Your task to perform on an android device: Open Yahoo.com Image 0: 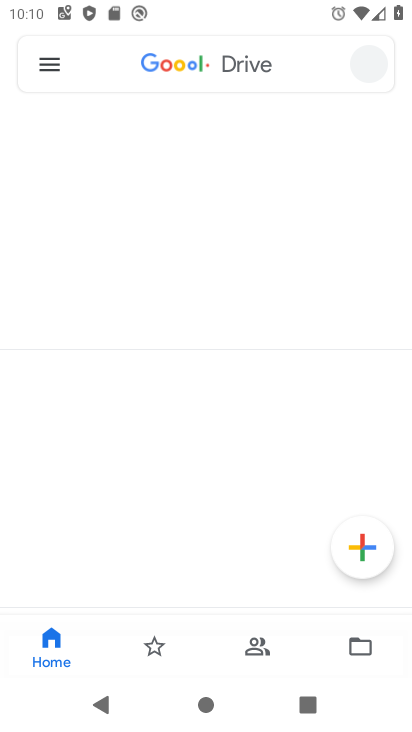
Step 0: click (208, 173)
Your task to perform on an android device: Open Yahoo.com Image 1: 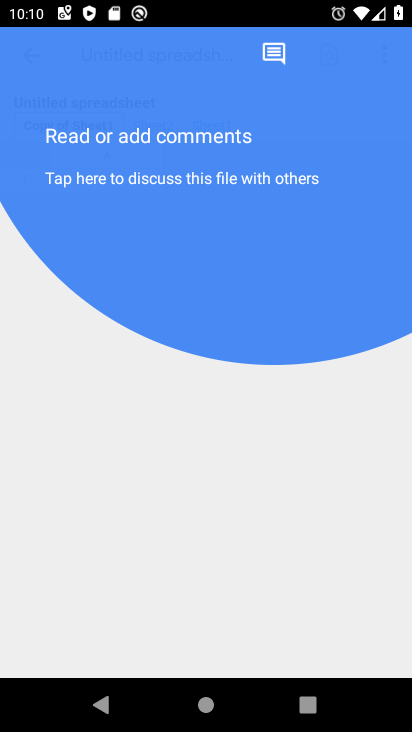
Step 1: press back button
Your task to perform on an android device: Open Yahoo.com Image 2: 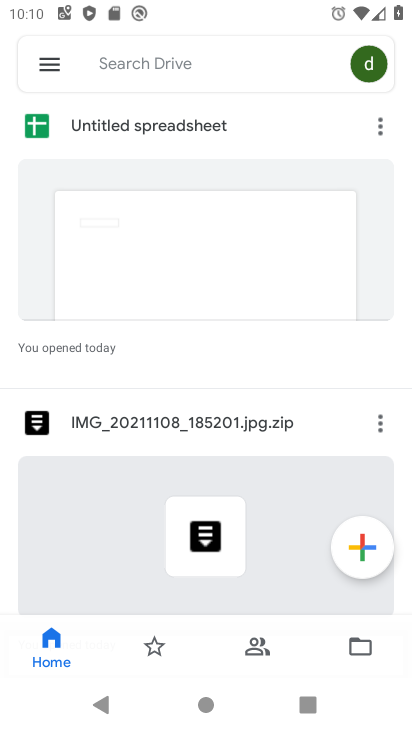
Step 2: press back button
Your task to perform on an android device: Open Yahoo.com Image 3: 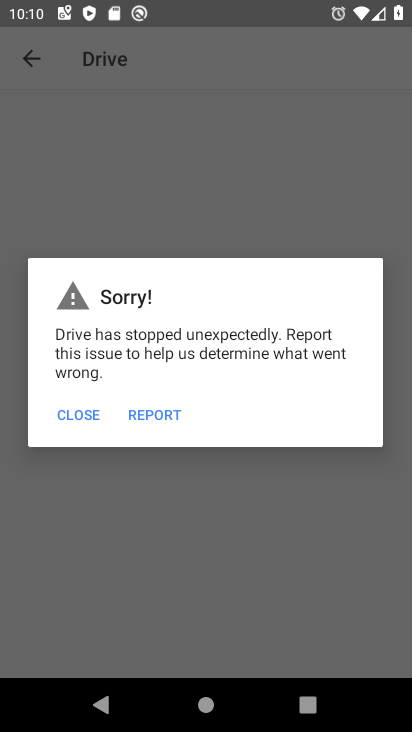
Step 3: click (76, 403)
Your task to perform on an android device: Open Yahoo.com Image 4: 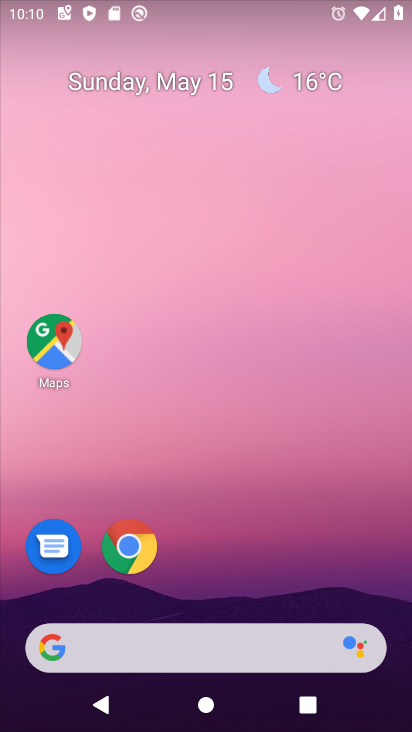
Step 4: click (179, 223)
Your task to perform on an android device: Open Yahoo.com Image 5: 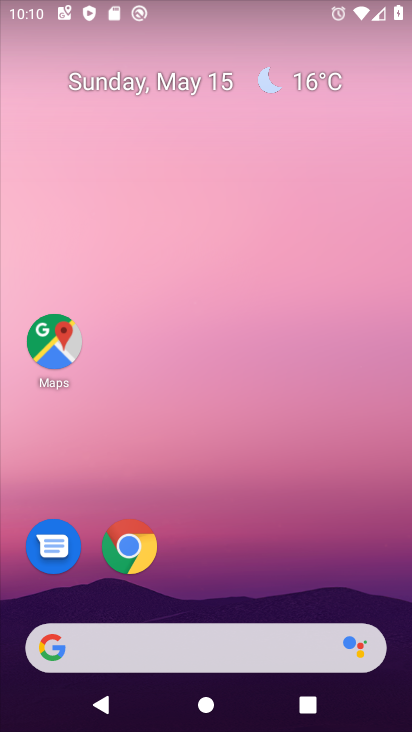
Step 5: drag from (202, 458) to (202, 190)
Your task to perform on an android device: Open Yahoo.com Image 6: 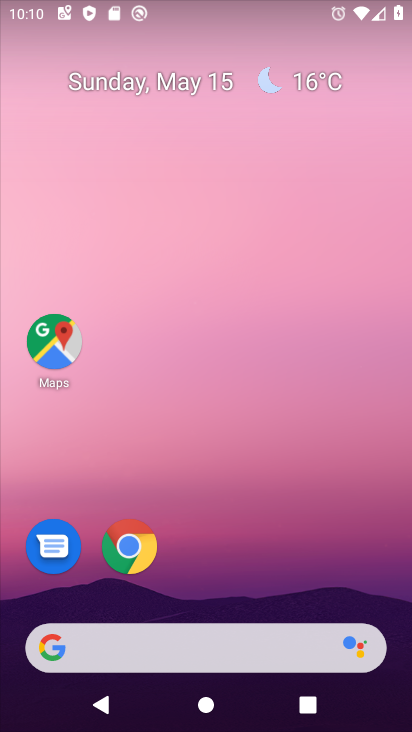
Step 6: drag from (246, 596) to (206, 193)
Your task to perform on an android device: Open Yahoo.com Image 7: 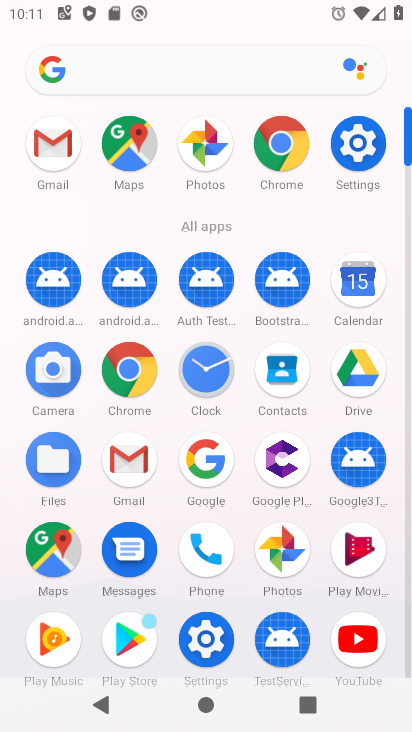
Step 7: click (359, 153)
Your task to perform on an android device: Open Yahoo.com Image 8: 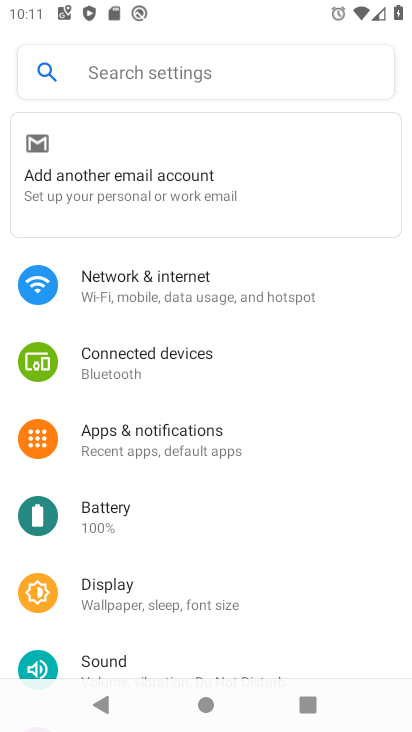
Step 8: press back button
Your task to perform on an android device: Open Yahoo.com Image 9: 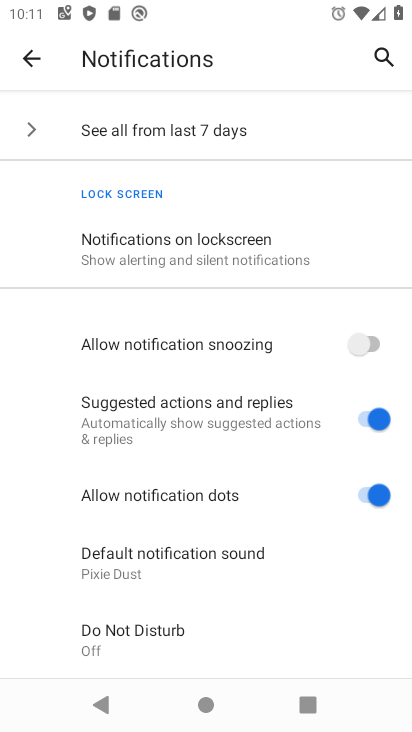
Step 9: press back button
Your task to perform on an android device: Open Yahoo.com Image 10: 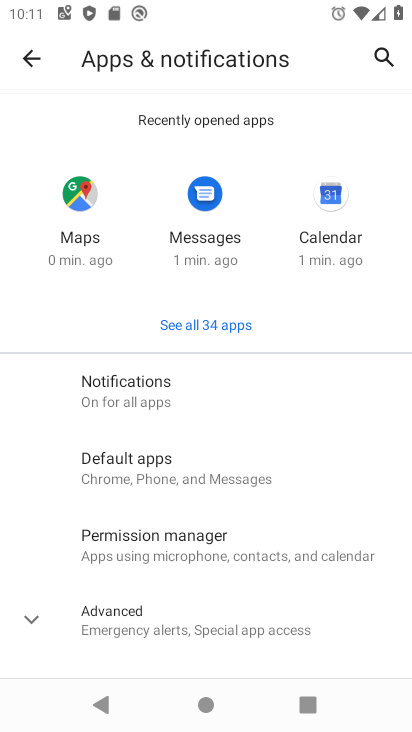
Step 10: press back button
Your task to perform on an android device: Open Yahoo.com Image 11: 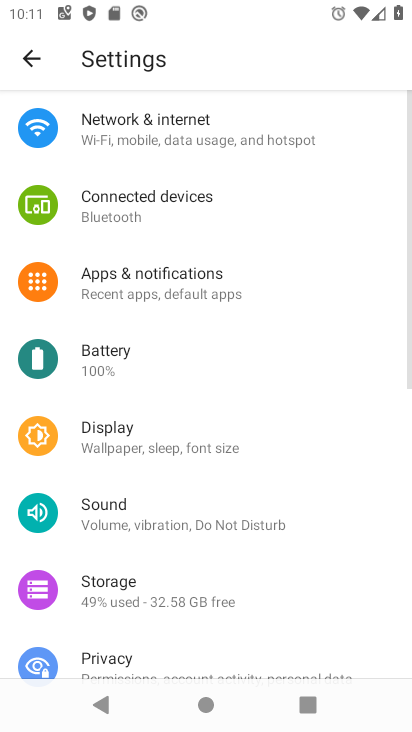
Step 11: press home button
Your task to perform on an android device: Open Yahoo.com Image 12: 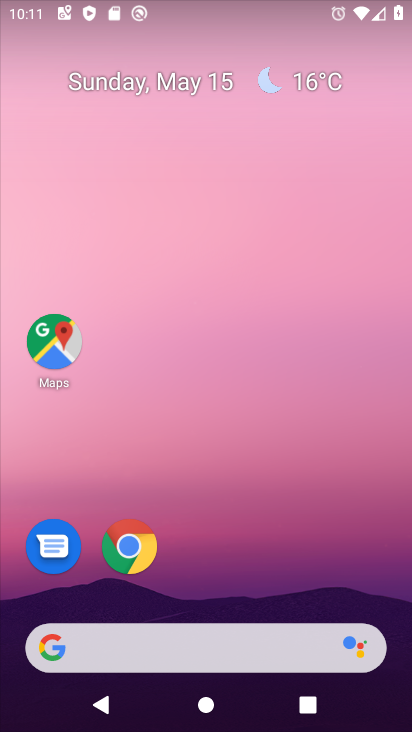
Step 12: drag from (248, 563) to (171, 211)
Your task to perform on an android device: Open Yahoo.com Image 13: 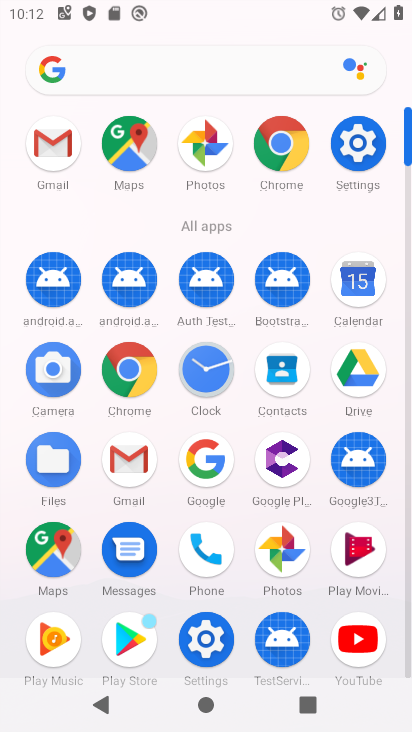
Step 13: click (281, 144)
Your task to perform on an android device: Open Yahoo.com Image 14: 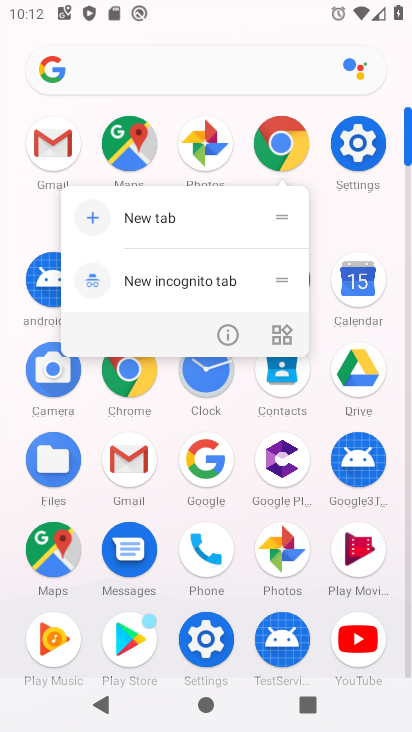
Step 14: click (261, 163)
Your task to perform on an android device: Open Yahoo.com Image 15: 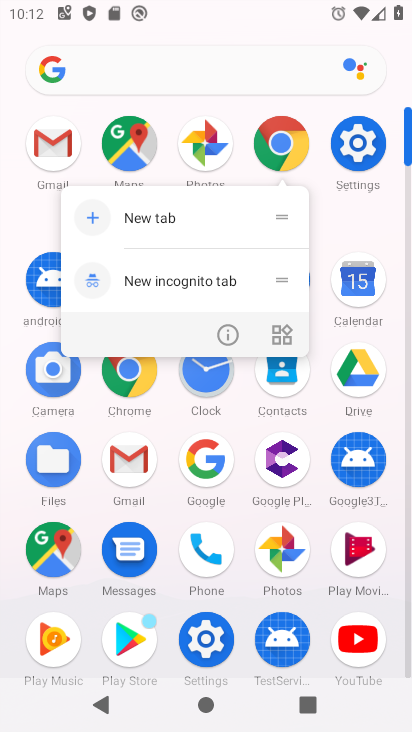
Step 15: click (262, 162)
Your task to perform on an android device: Open Yahoo.com Image 16: 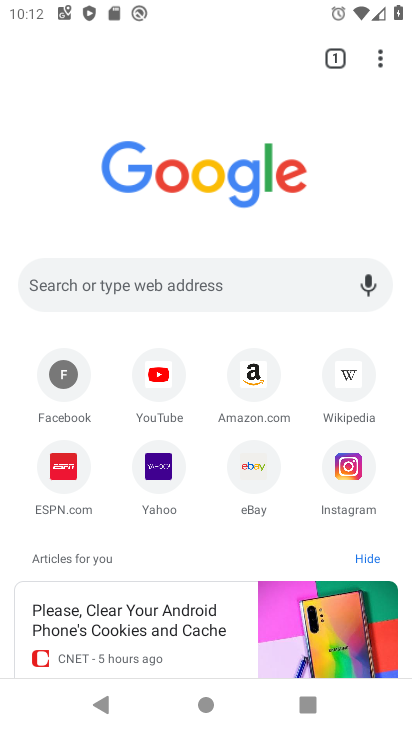
Step 16: click (154, 457)
Your task to perform on an android device: Open Yahoo.com Image 17: 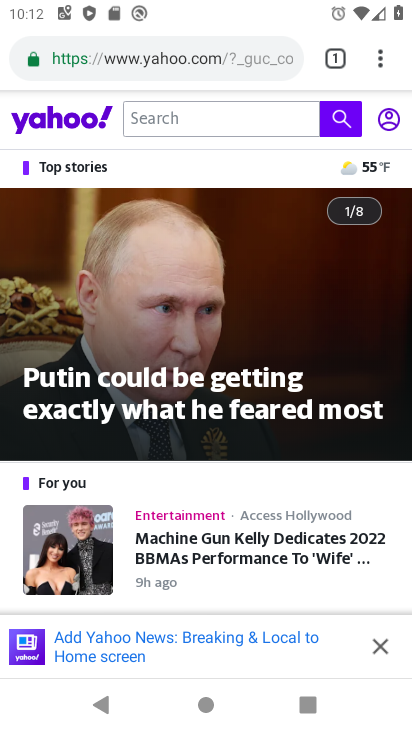
Step 17: task complete